Your task to perform on an android device: What's the weather going to be tomorrow? Image 0: 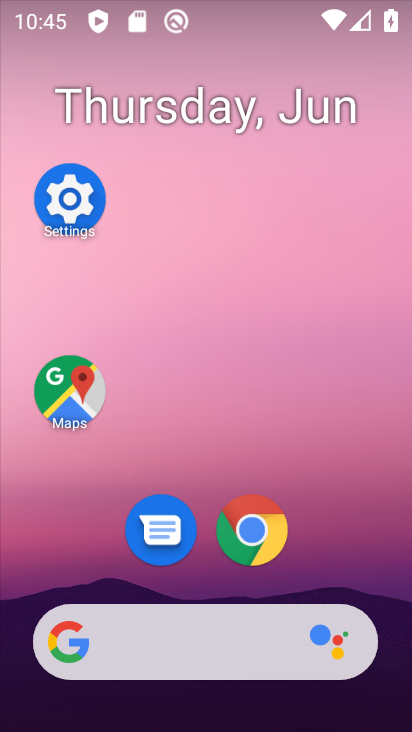
Step 0: drag from (345, 570) to (328, 210)
Your task to perform on an android device: What's the weather going to be tomorrow? Image 1: 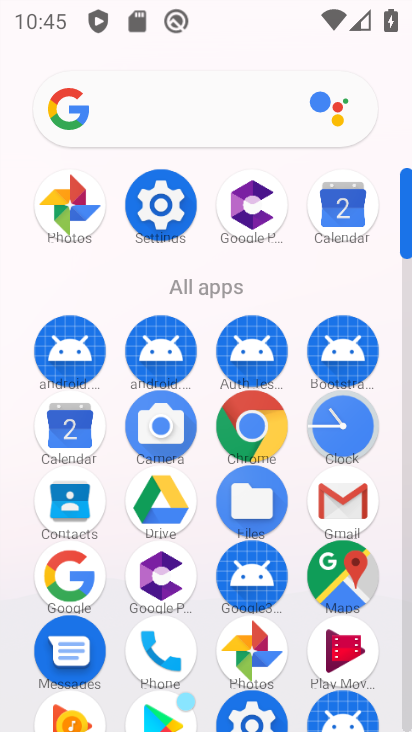
Step 1: drag from (80, 574) to (90, 310)
Your task to perform on an android device: What's the weather going to be tomorrow? Image 2: 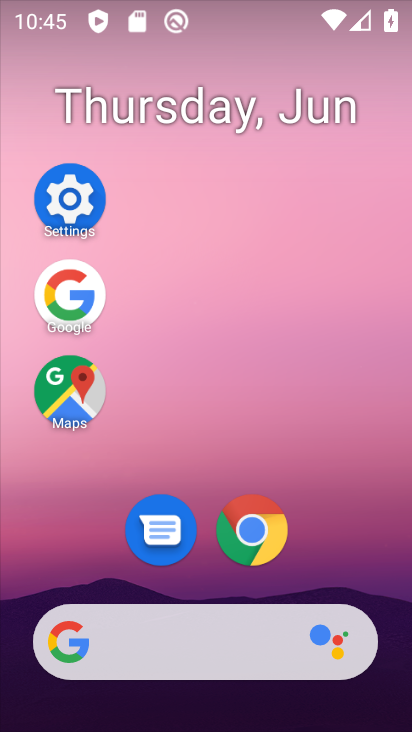
Step 2: click (94, 287)
Your task to perform on an android device: What's the weather going to be tomorrow? Image 3: 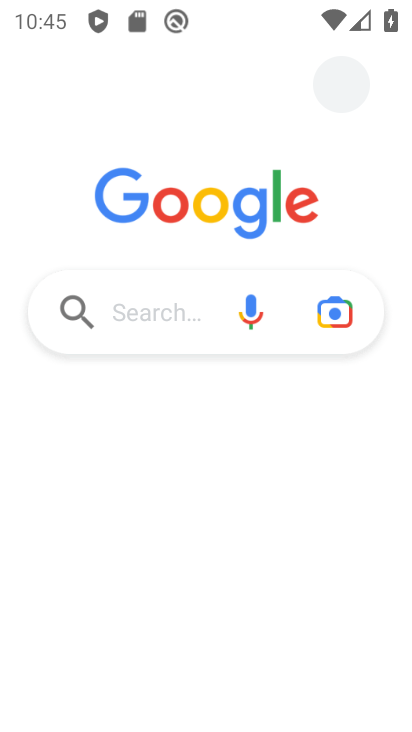
Step 3: drag from (184, 316) to (121, 316)
Your task to perform on an android device: What's the weather going to be tomorrow? Image 4: 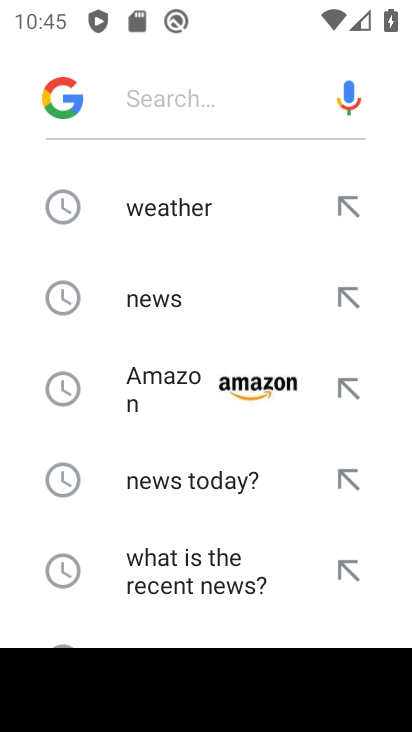
Step 4: click (184, 207)
Your task to perform on an android device: What's the weather going to be tomorrow? Image 5: 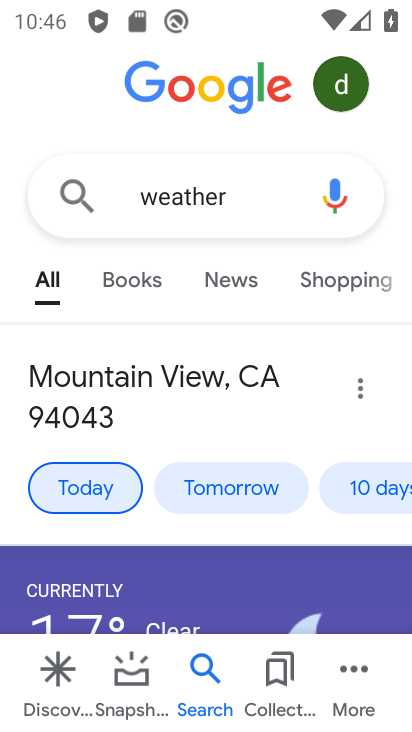
Step 5: click (245, 477)
Your task to perform on an android device: What's the weather going to be tomorrow? Image 6: 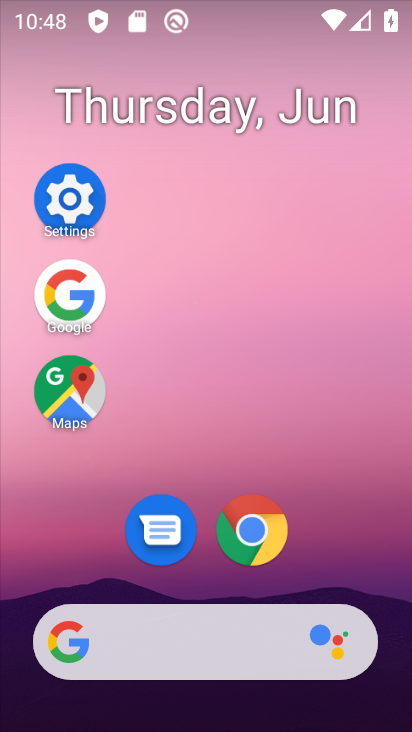
Step 6: click (88, 301)
Your task to perform on an android device: What's the weather going to be tomorrow? Image 7: 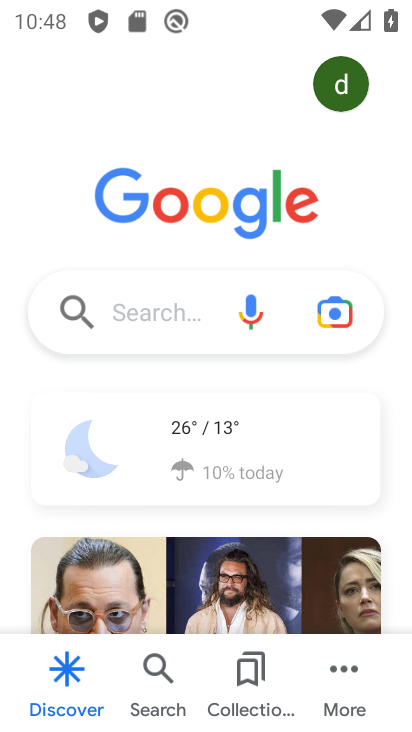
Step 7: click (275, 435)
Your task to perform on an android device: What's the weather going to be tomorrow? Image 8: 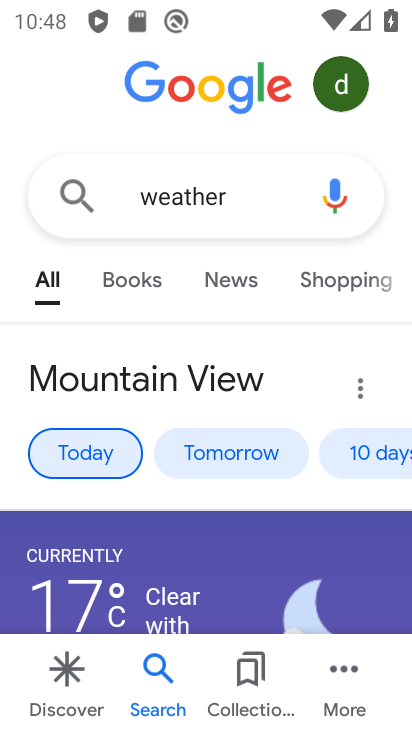
Step 8: click (248, 451)
Your task to perform on an android device: What's the weather going to be tomorrow? Image 9: 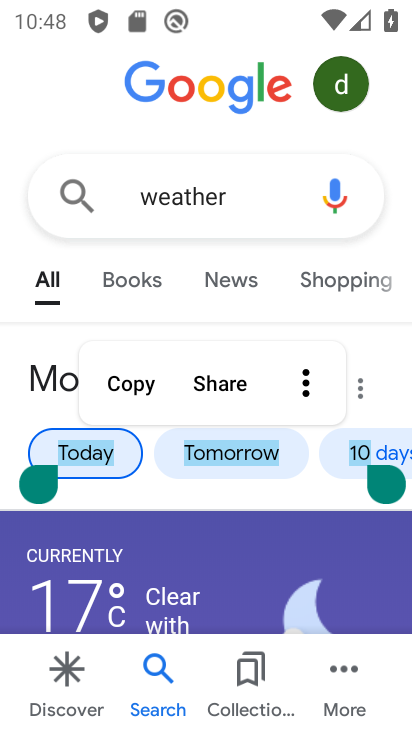
Step 9: click (255, 456)
Your task to perform on an android device: What's the weather going to be tomorrow? Image 10: 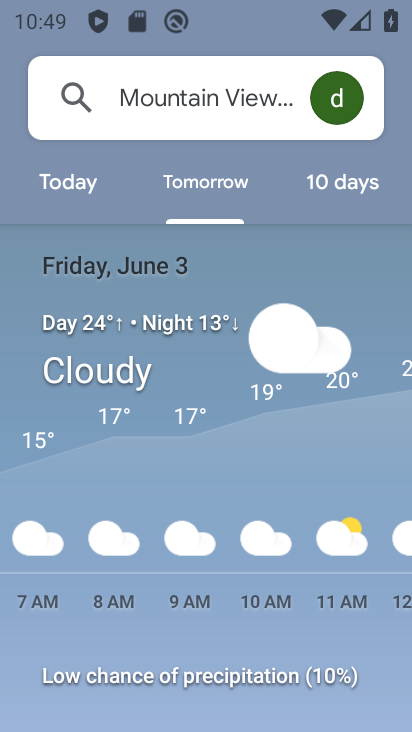
Step 10: task complete